Your task to perform on an android device: check out phone information Image 0: 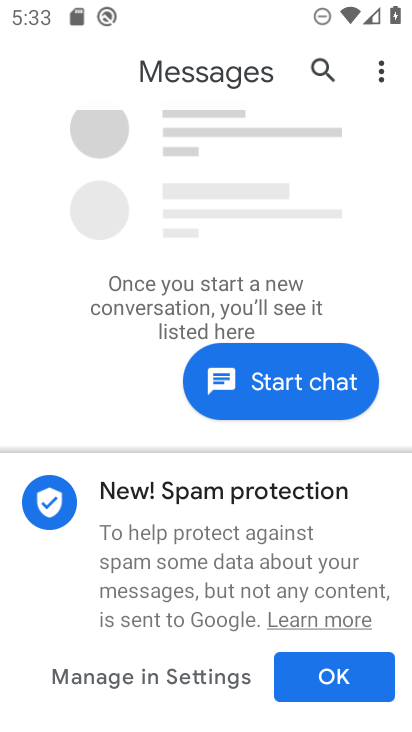
Step 0: press home button
Your task to perform on an android device: check out phone information Image 1: 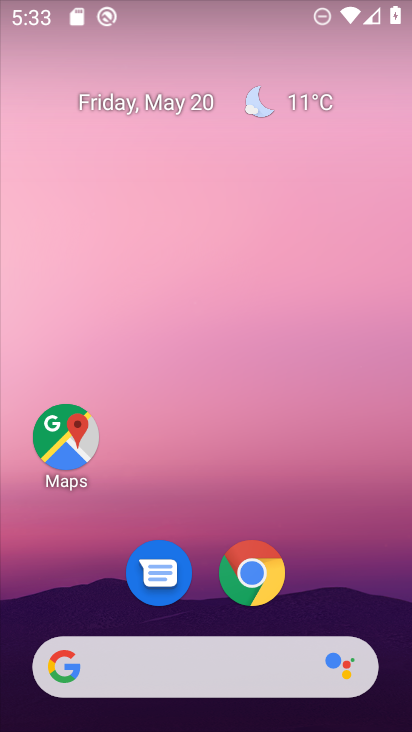
Step 1: drag from (354, 488) to (183, 20)
Your task to perform on an android device: check out phone information Image 2: 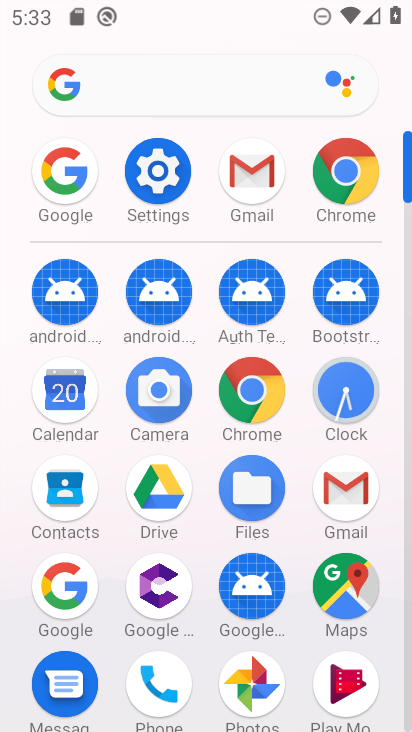
Step 2: click (130, 177)
Your task to perform on an android device: check out phone information Image 3: 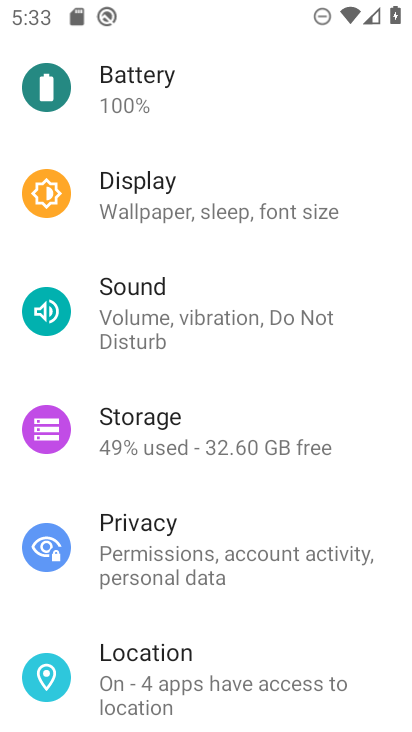
Step 3: drag from (307, 594) to (192, 14)
Your task to perform on an android device: check out phone information Image 4: 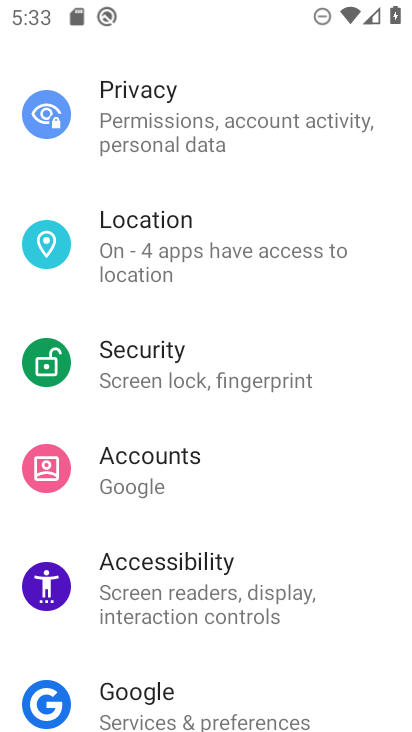
Step 4: drag from (281, 531) to (140, 1)
Your task to perform on an android device: check out phone information Image 5: 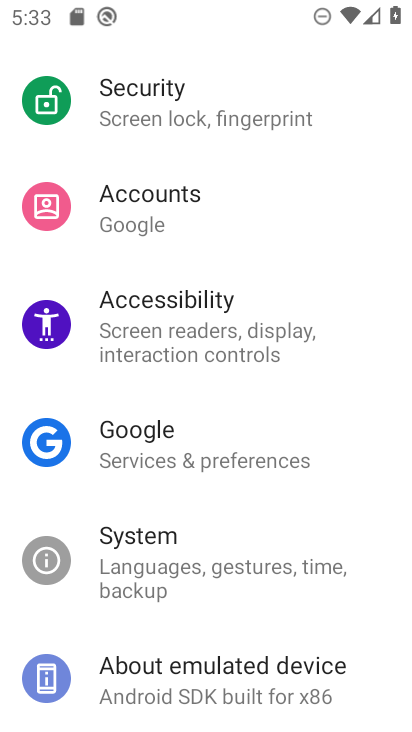
Step 5: click (236, 678)
Your task to perform on an android device: check out phone information Image 6: 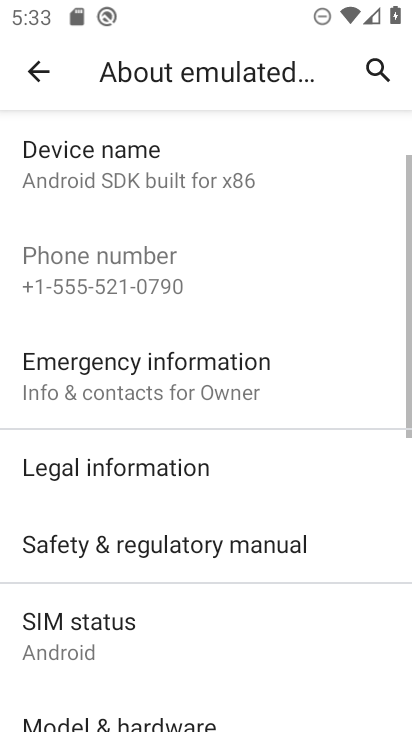
Step 6: task complete